Your task to perform on an android device: Go to settings Image 0: 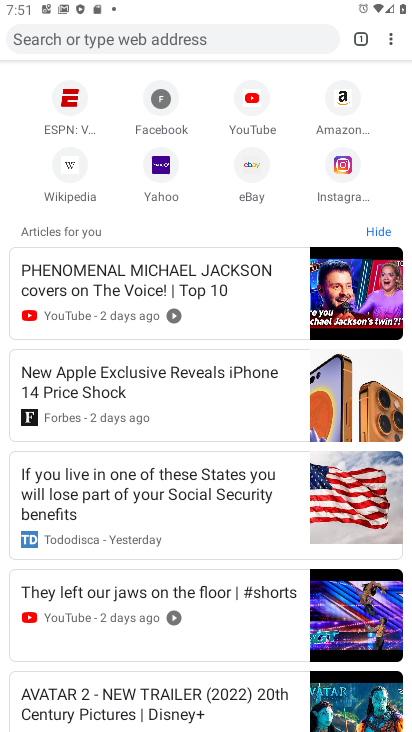
Step 0: press home button
Your task to perform on an android device: Go to settings Image 1: 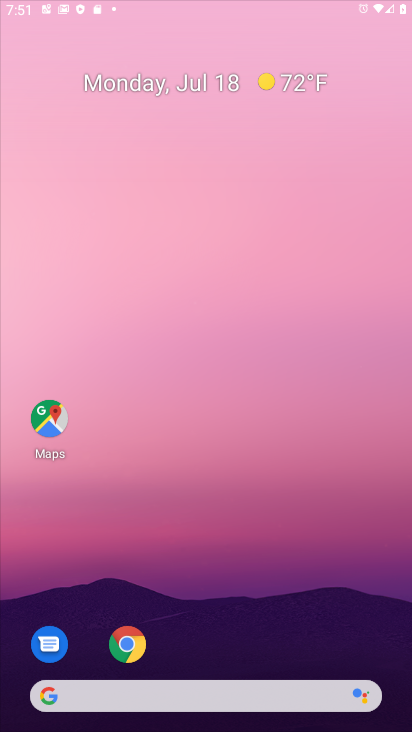
Step 1: drag from (358, 711) to (254, 9)
Your task to perform on an android device: Go to settings Image 2: 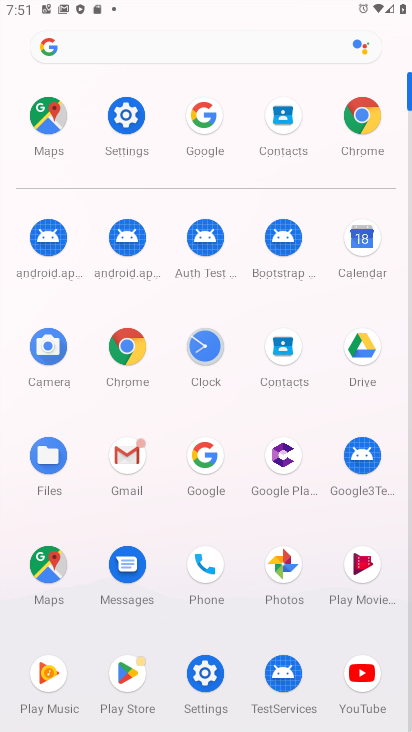
Step 2: click (201, 673)
Your task to perform on an android device: Go to settings Image 3: 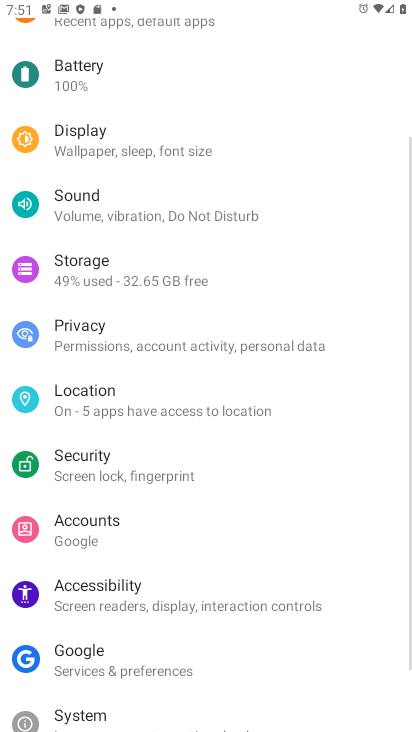
Step 3: task complete